Your task to perform on an android device: Open Maps and search for coffee Image 0: 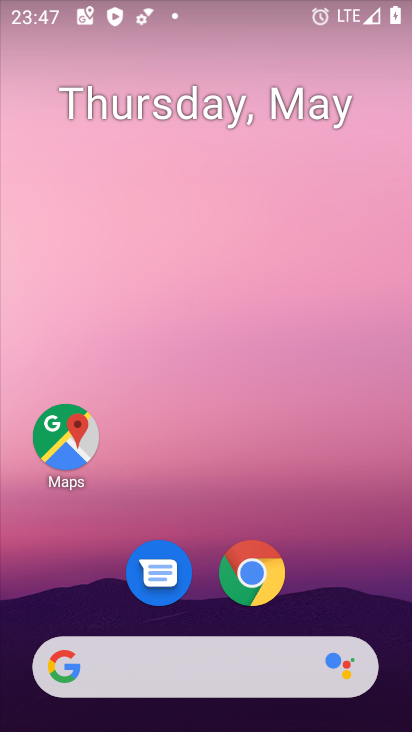
Step 0: click (65, 430)
Your task to perform on an android device: Open Maps and search for coffee Image 1: 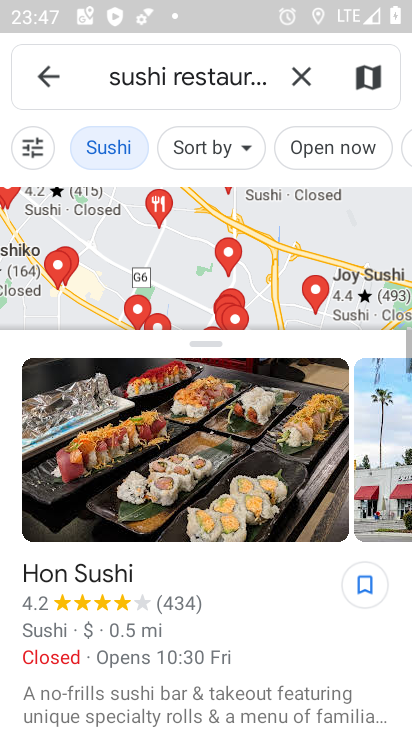
Step 1: click (304, 73)
Your task to perform on an android device: Open Maps and search for coffee Image 2: 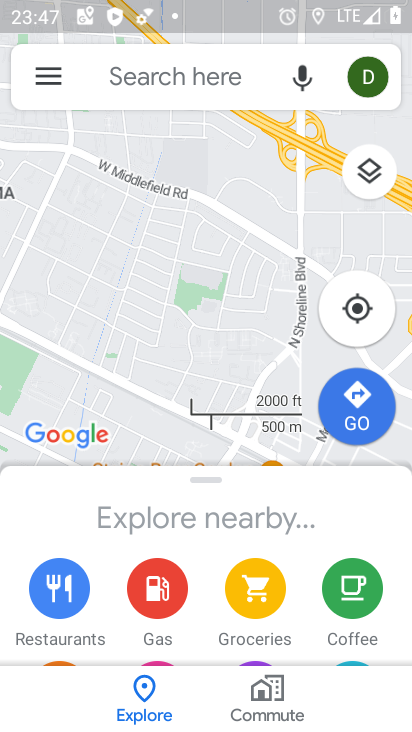
Step 2: click (183, 84)
Your task to perform on an android device: Open Maps and search for coffee Image 3: 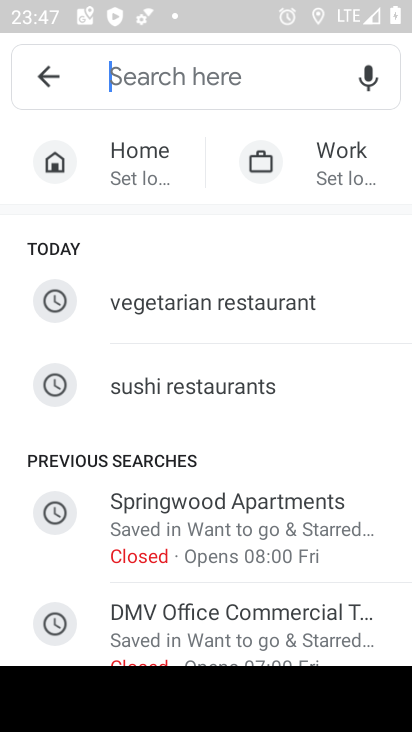
Step 3: type "coffee"
Your task to perform on an android device: Open Maps and search for coffee Image 4: 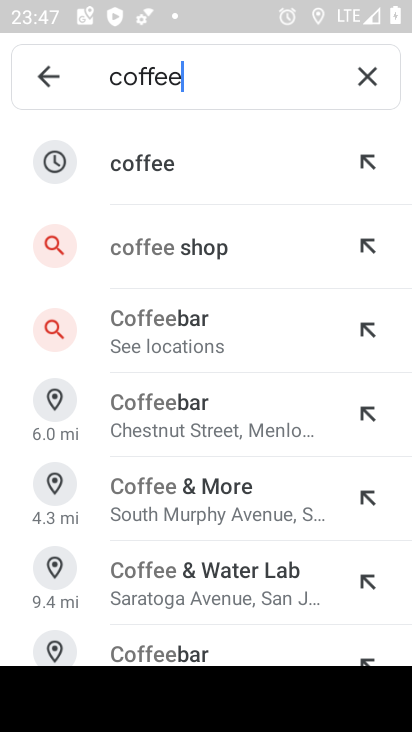
Step 4: click (133, 171)
Your task to perform on an android device: Open Maps and search for coffee Image 5: 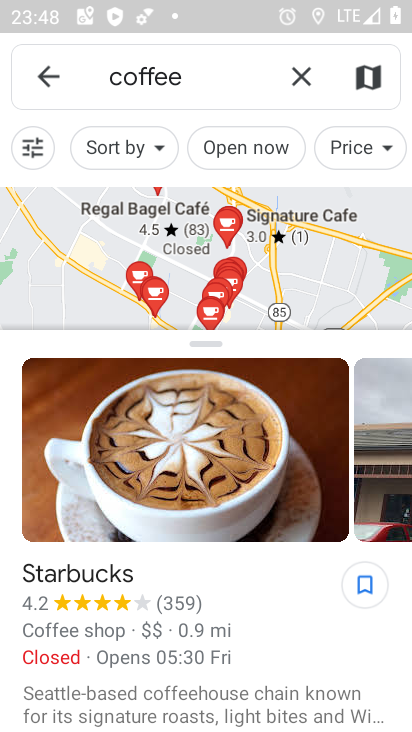
Step 5: task complete